Your task to perform on an android device: Go to network settings Image 0: 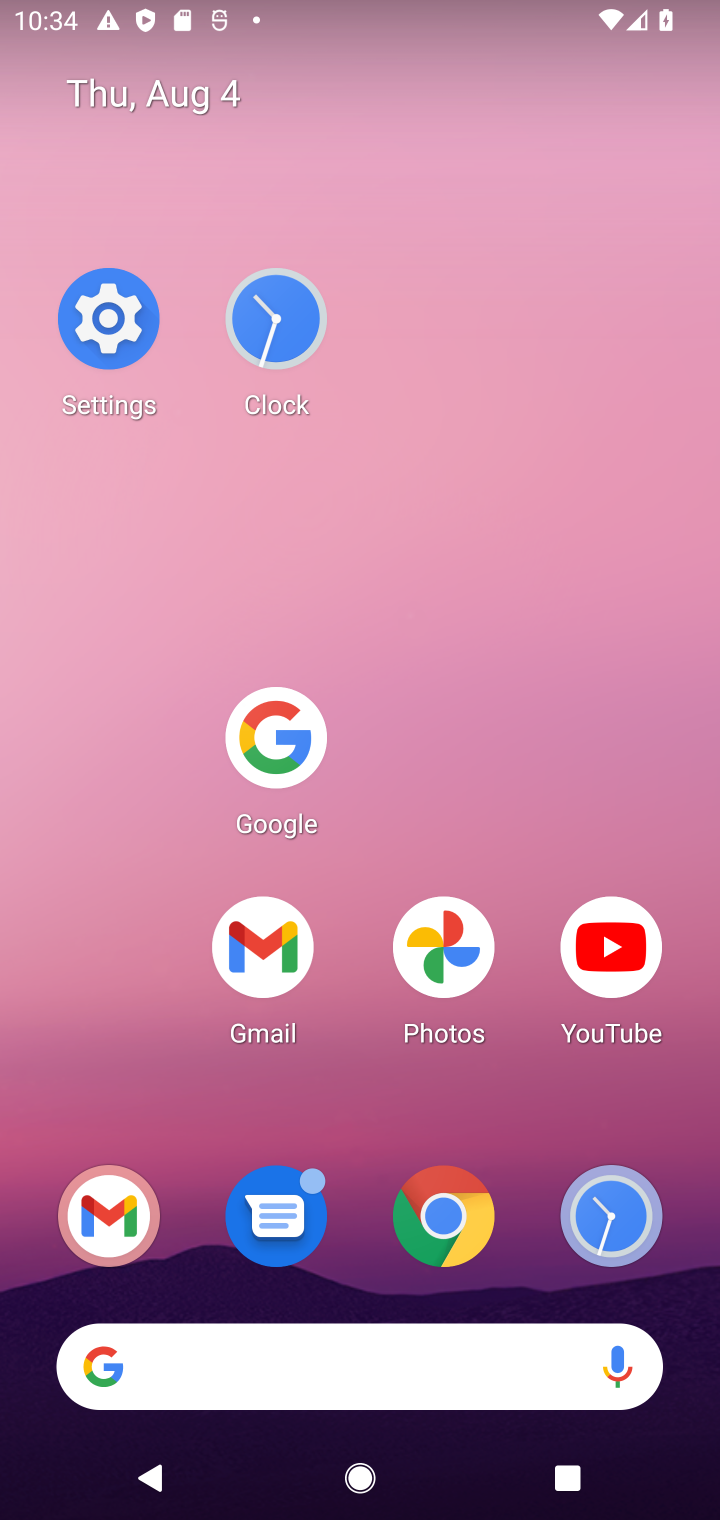
Step 0: click (84, 341)
Your task to perform on an android device: Go to network settings Image 1: 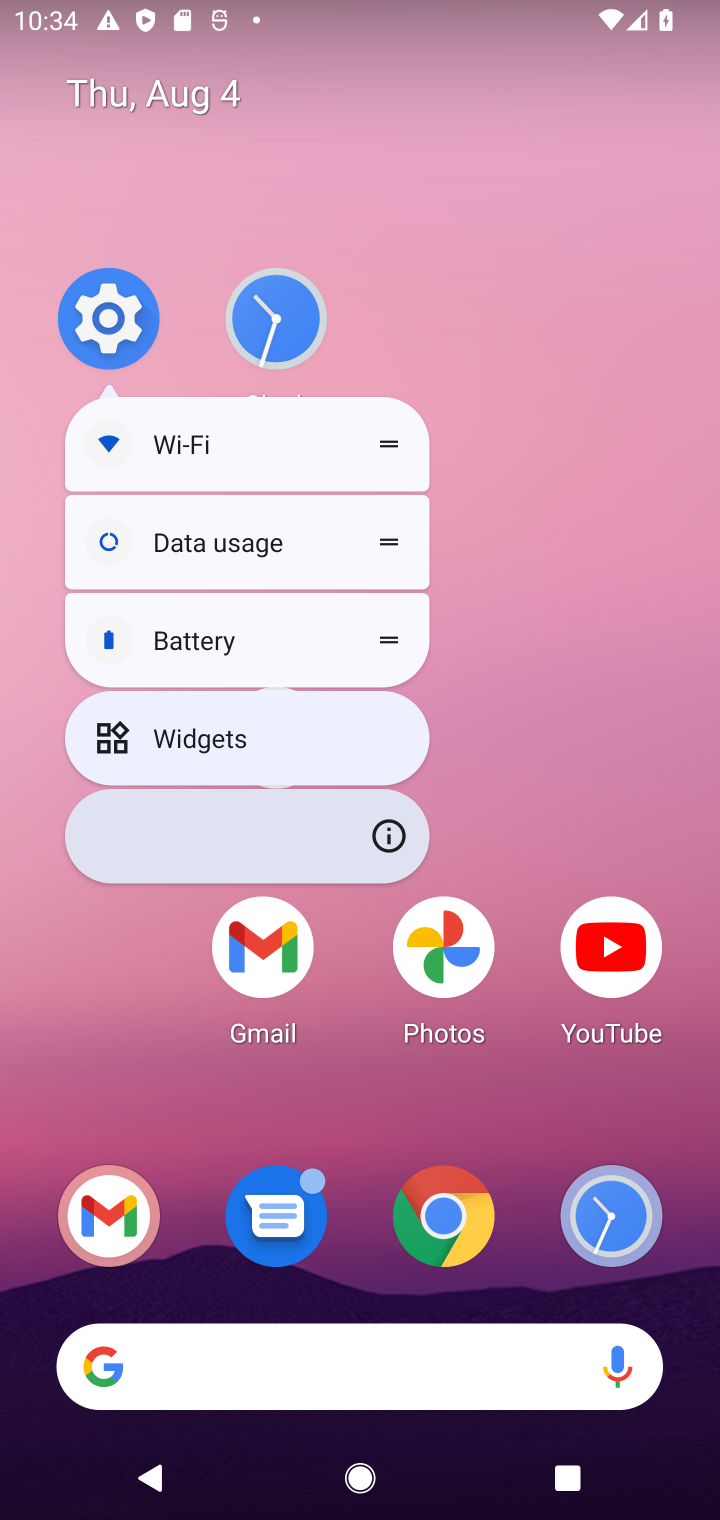
Step 1: click (113, 302)
Your task to perform on an android device: Go to network settings Image 2: 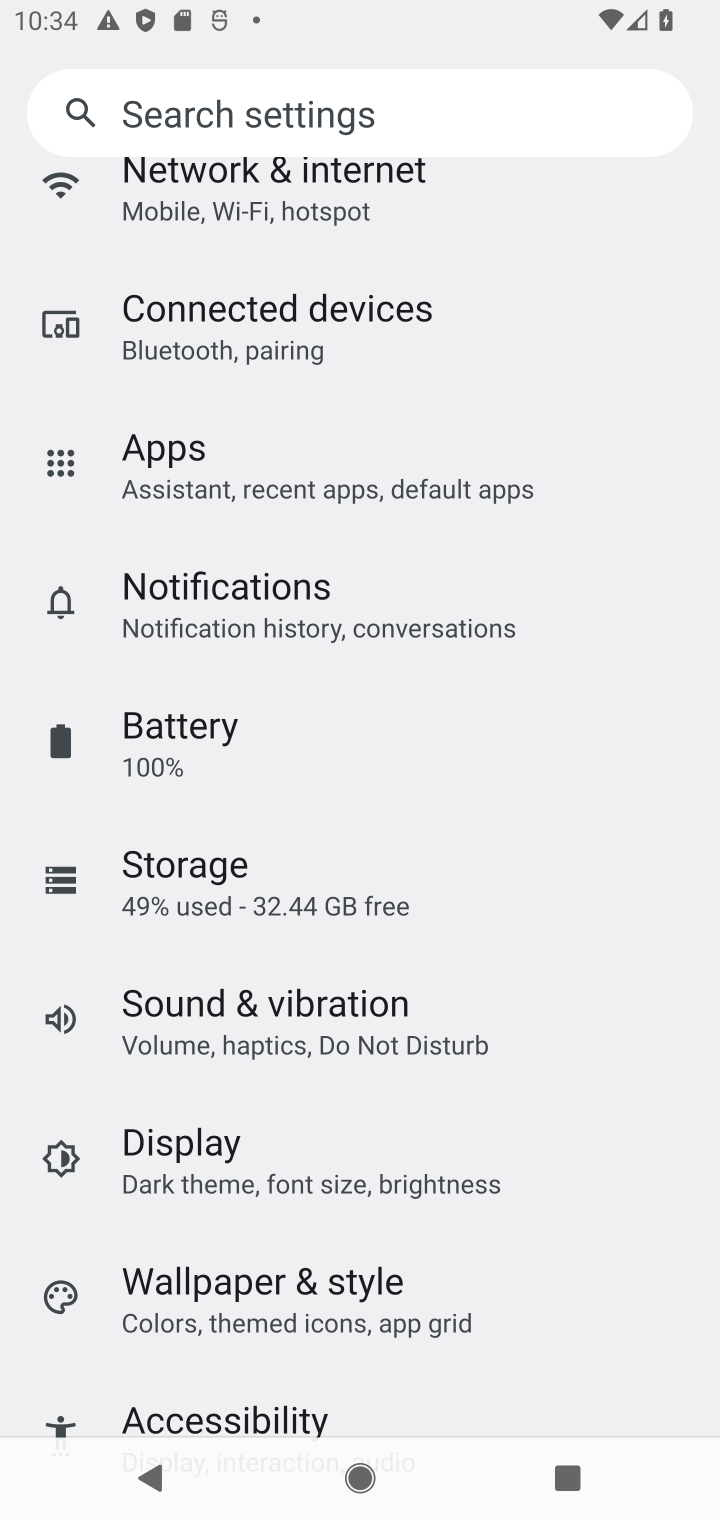
Step 2: click (432, 177)
Your task to perform on an android device: Go to network settings Image 3: 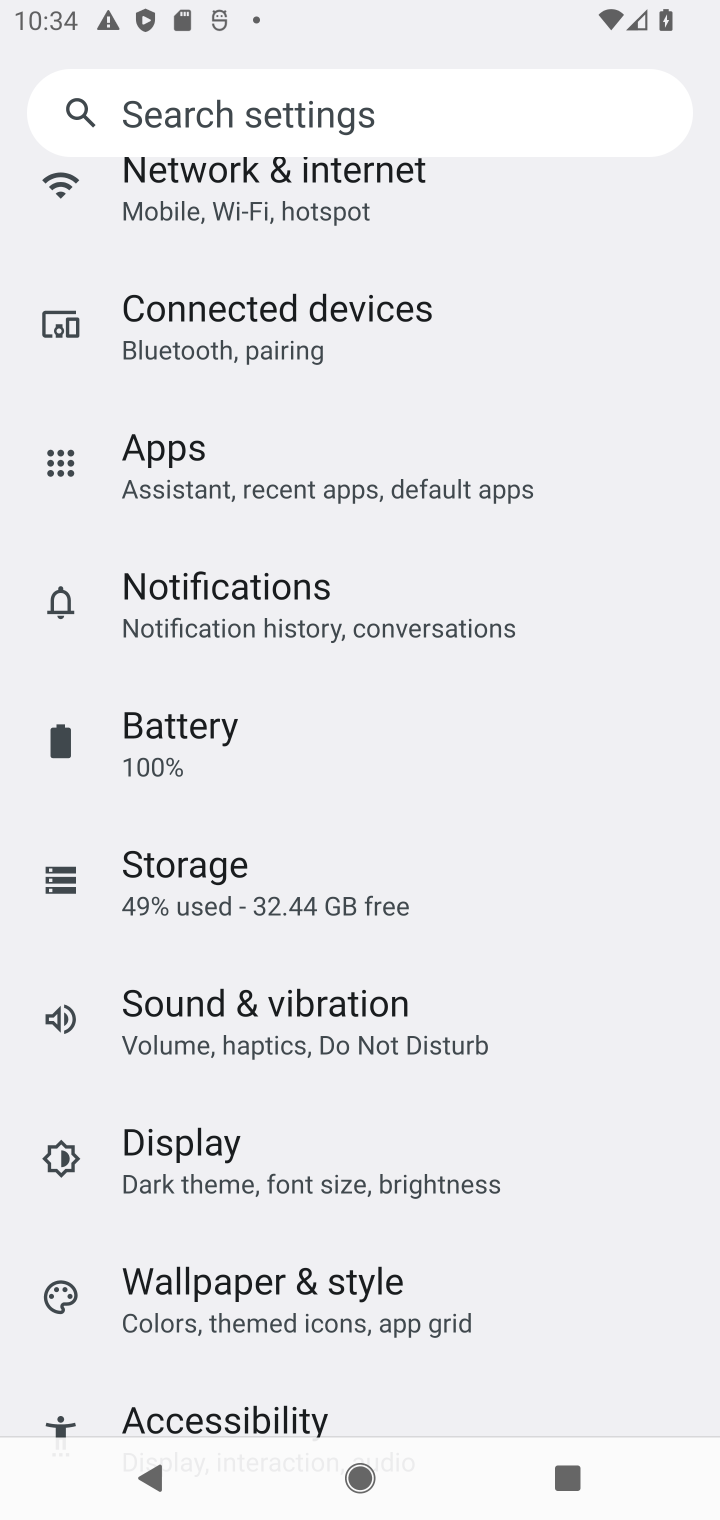
Step 3: task complete